Your task to perform on an android device: set an alarm Image 0: 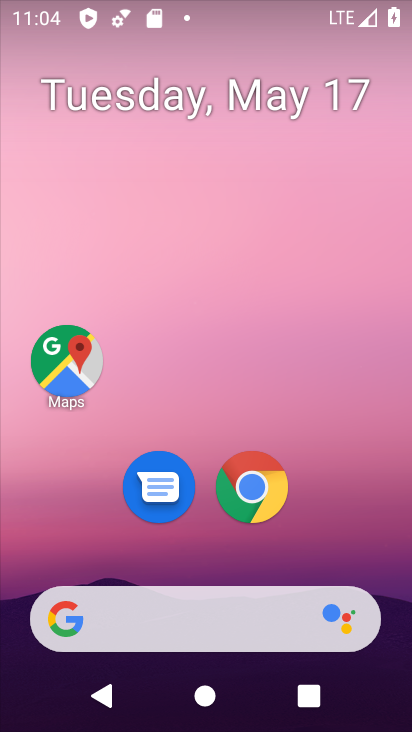
Step 0: drag from (350, 541) to (304, 136)
Your task to perform on an android device: set an alarm Image 1: 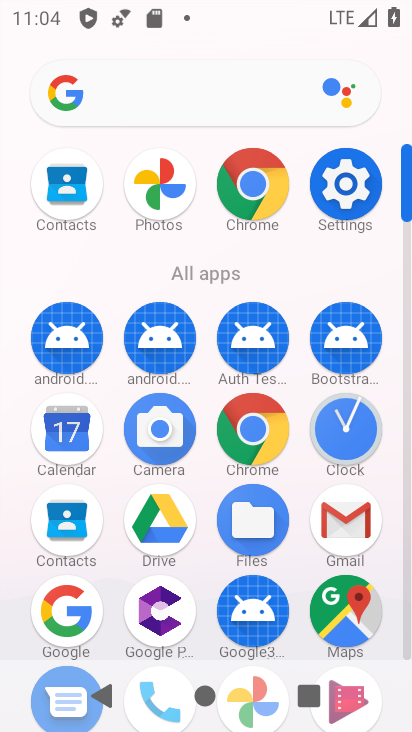
Step 1: click (374, 435)
Your task to perform on an android device: set an alarm Image 2: 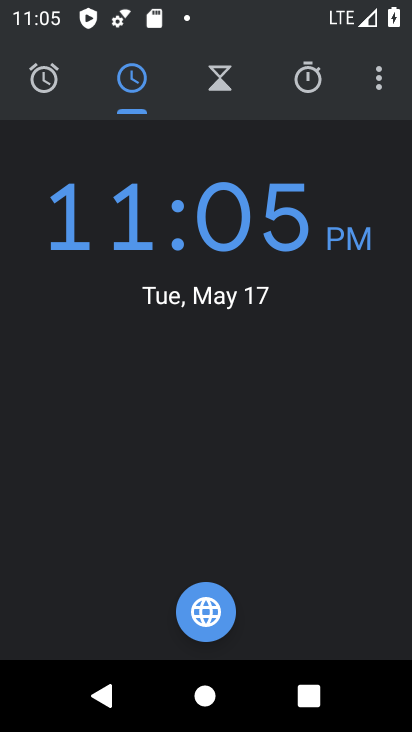
Step 2: click (57, 90)
Your task to perform on an android device: set an alarm Image 3: 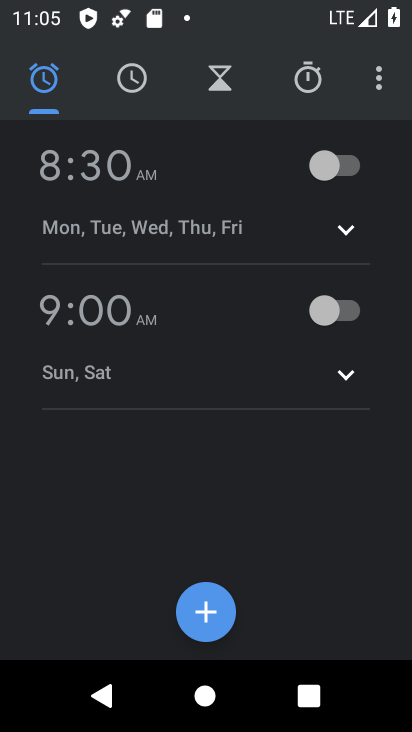
Step 3: click (204, 618)
Your task to perform on an android device: set an alarm Image 4: 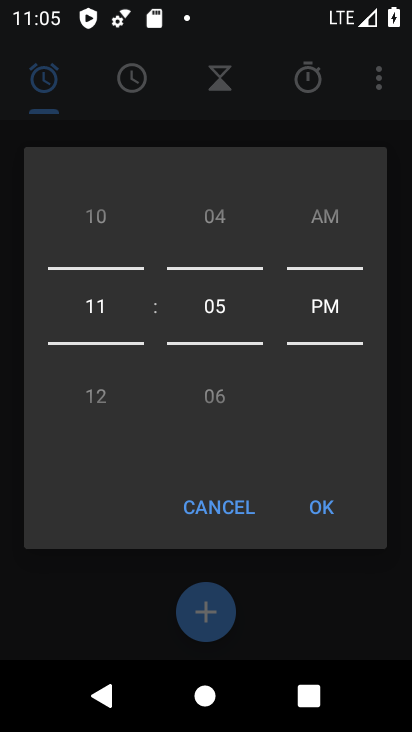
Step 4: click (319, 504)
Your task to perform on an android device: set an alarm Image 5: 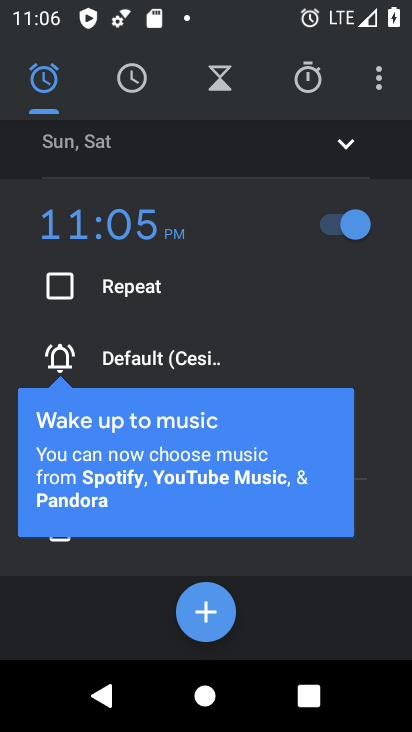
Step 5: task complete